Your task to perform on an android device: turn on notifications settings in the gmail app Image 0: 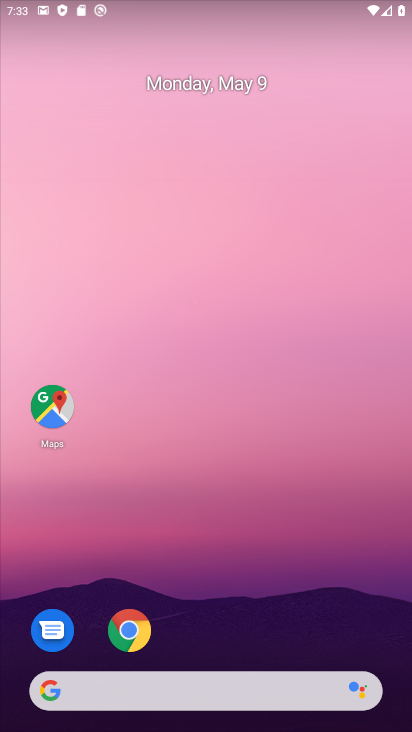
Step 0: drag from (287, 621) to (313, 213)
Your task to perform on an android device: turn on notifications settings in the gmail app Image 1: 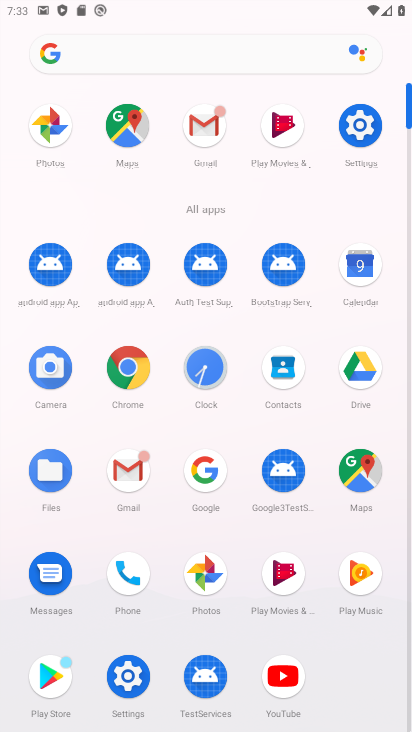
Step 1: click (132, 483)
Your task to perform on an android device: turn on notifications settings in the gmail app Image 2: 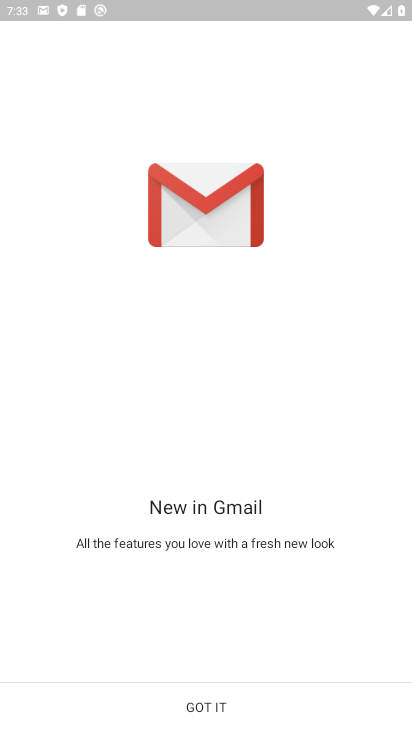
Step 2: click (192, 698)
Your task to perform on an android device: turn on notifications settings in the gmail app Image 3: 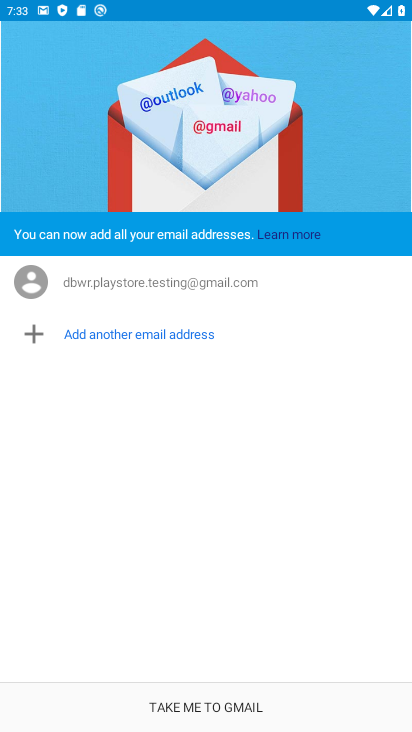
Step 3: click (191, 706)
Your task to perform on an android device: turn on notifications settings in the gmail app Image 4: 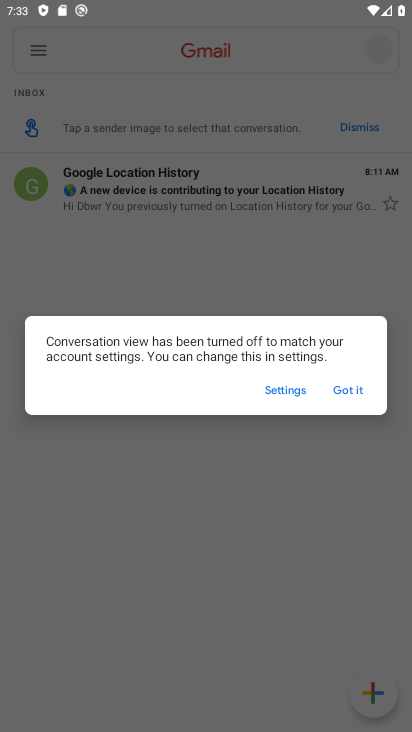
Step 4: click (350, 388)
Your task to perform on an android device: turn on notifications settings in the gmail app Image 5: 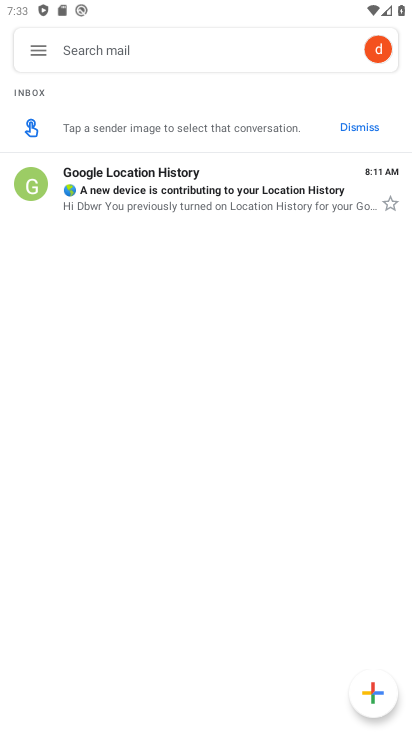
Step 5: click (51, 56)
Your task to perform on an android device: turn on notifications settings in the gmail app Image 6: 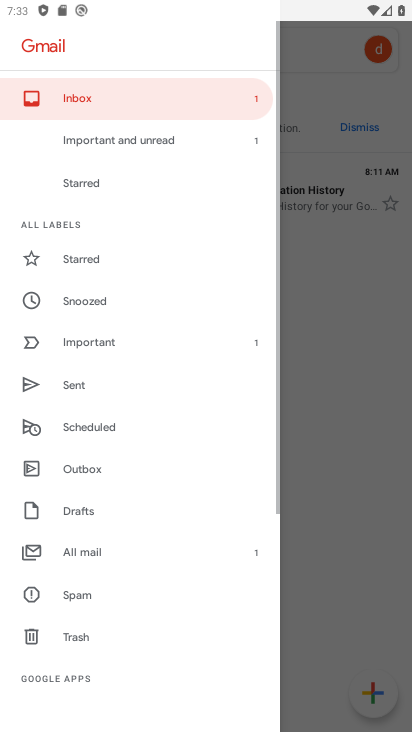
Step 6: drag from (136, 710) to (213, 333)
Your task to perform on an android device: turn on notifications settings in the gmail app Image 7: 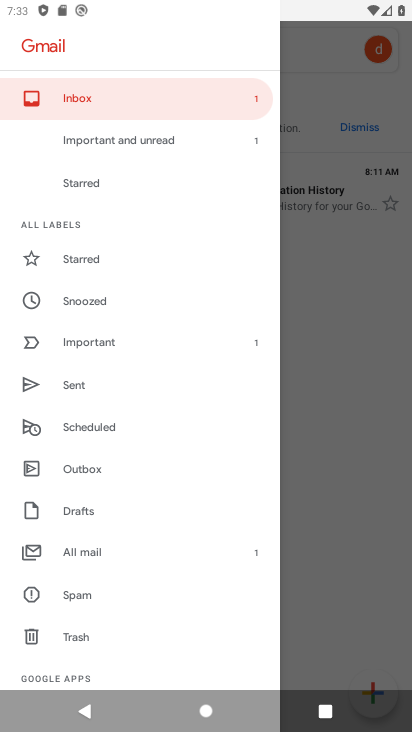
Step 7: drag from (203, 621) to (203, 308)
Your task to perform on an android device: turn on notifications settings in the gmail app Image 8: 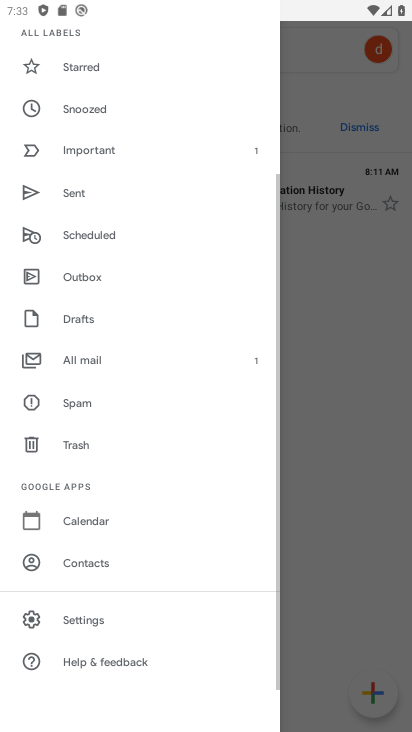
Step 8: click (76, 626)
Your task to perform on an android device: turn on notifications settings in the gmail app Image 9: 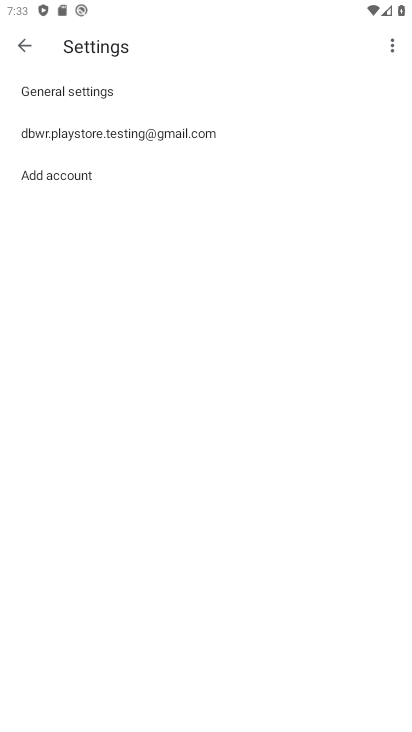
Step 9: click (125, 139)
Your task to perform on an android device: turn on notifications settings in the gmail app Image 10: 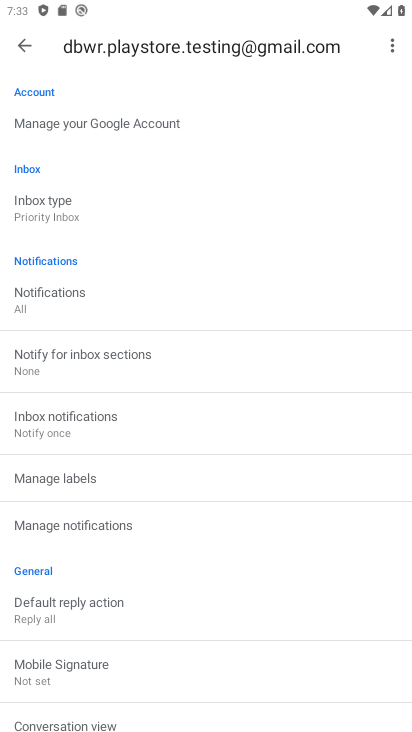
Step 10: click (44, 294)
Your task to perform on an android device: turn on notifications settings in the gmail app Image 11: 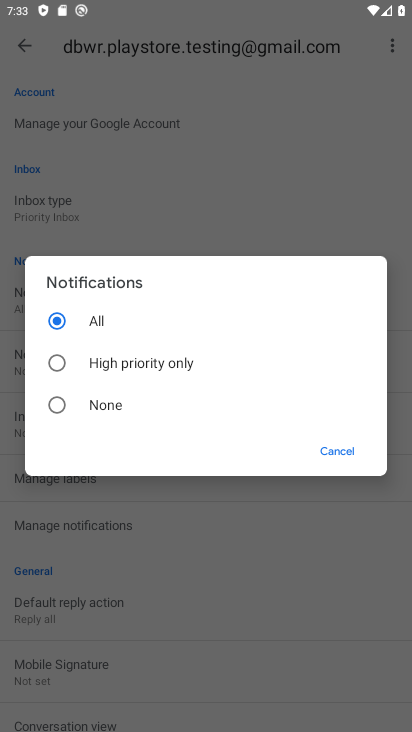
Step 11: task complete